Your task to perform on an android device: Open Chrome and go to settings Image 0: 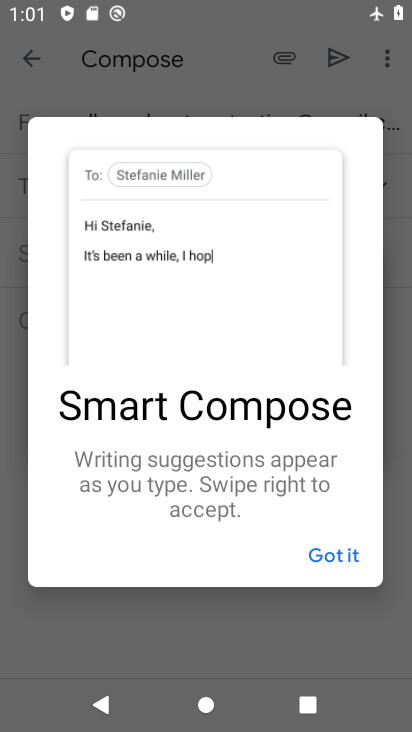
Step 0: press home button
Your task to perform on an android device: Open Chrome and go to settings Image 1: 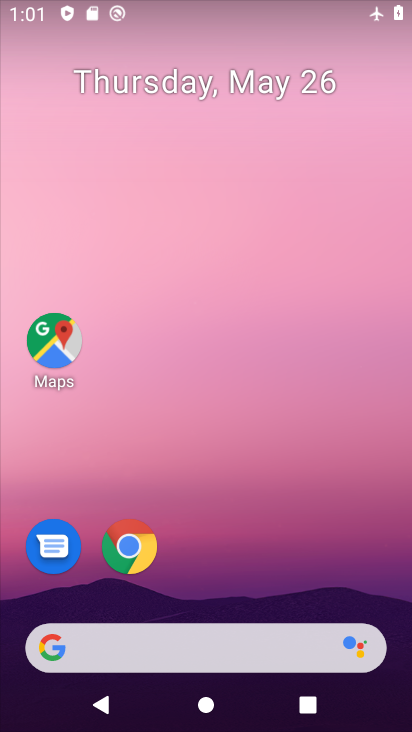
Step 1: click (136, 561)
Your task to perform on an android device: Open Chrome and go to settings Image 2: 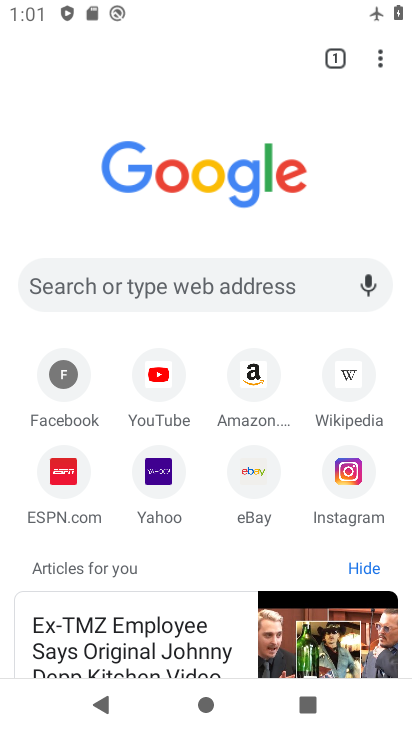
Step 2: task complete